Your task to perform on an android device: Toggle the flashlight Image 0: 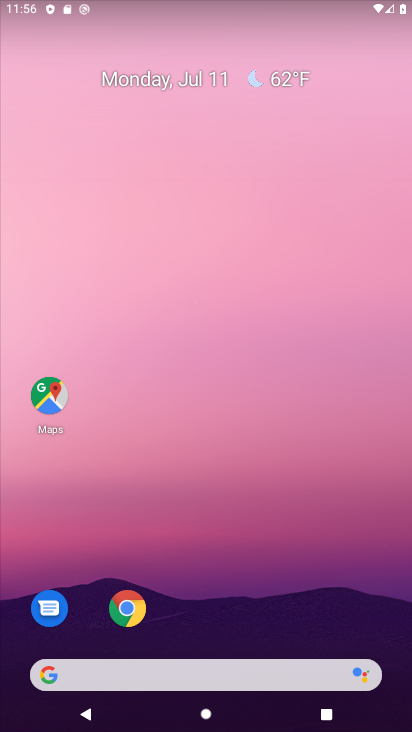
Step 0: drag from (316, 587) to (297, 0)
Your task to perform on an android device: Toggle the flashlight Image 1: 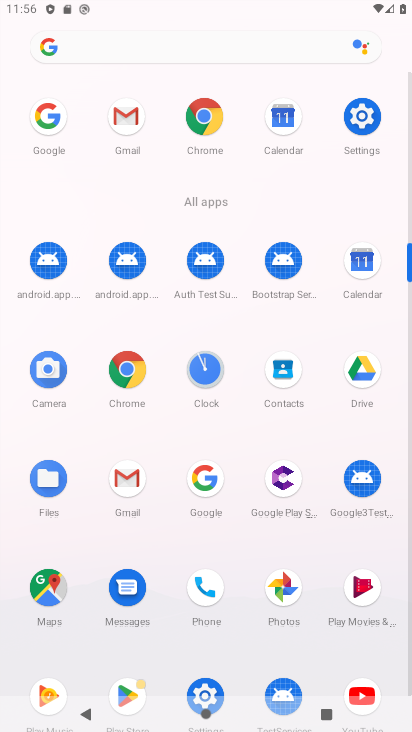
Step 1: click (356, 120)
Your task to perform on an android device: Toggle the flashlight Image 2: 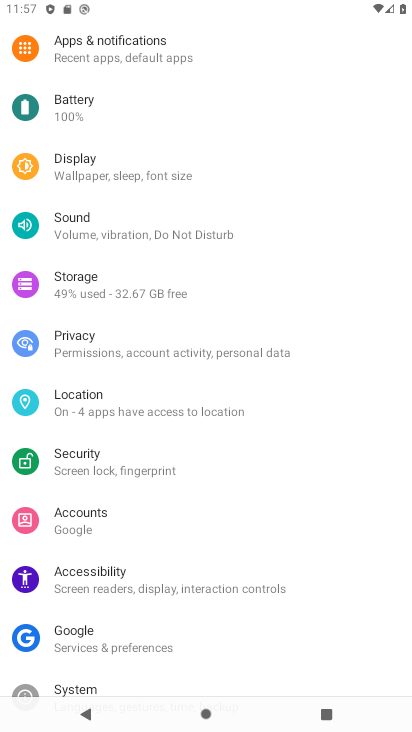
Step 2: task complete